Your task to perform on an android device: Go to display settings Image 0: 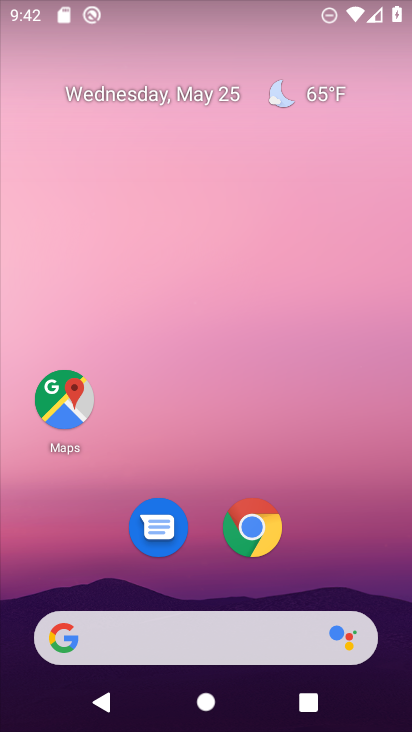
Step 0: drag from (321, 547) to (297, 52)
Your task to perform on an android device: Go to display settings Image 1: 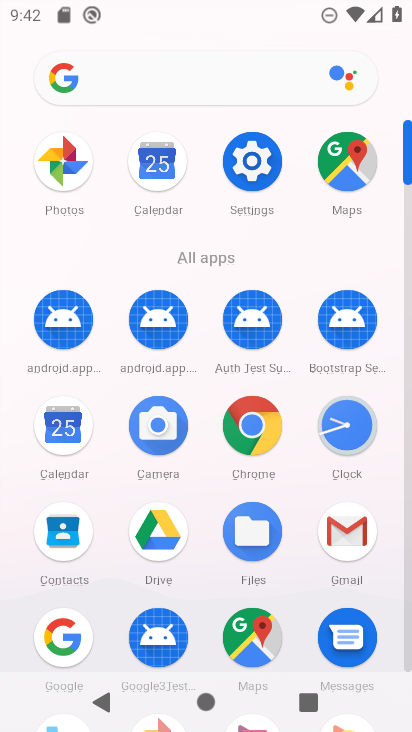
Step 1: click (253, 160)
Your task to perform on an android device: Go to display settings Image 2: 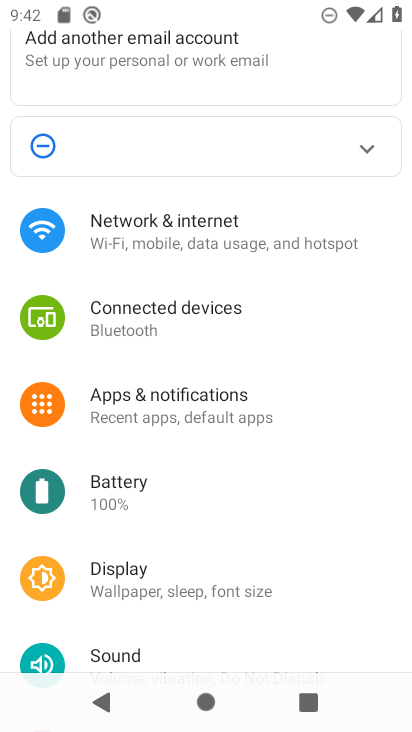
Step 2: click (138, 585)
Your task to perform on an android device: Go to display settings Image 3: 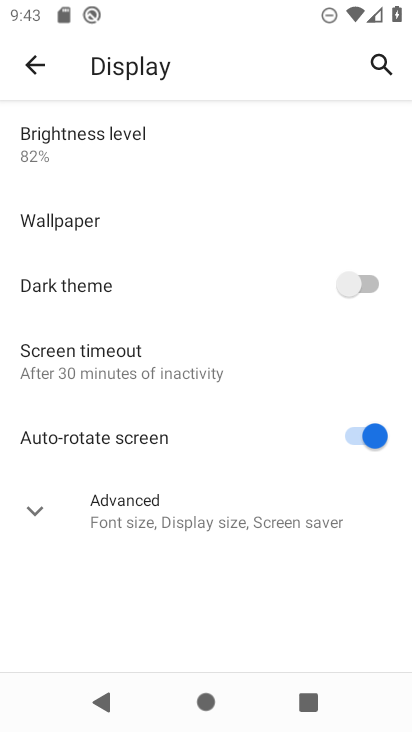
Step 3: task complete